Your task to perform on an android device: remove spam from my inbox in the gmail app Image 0: 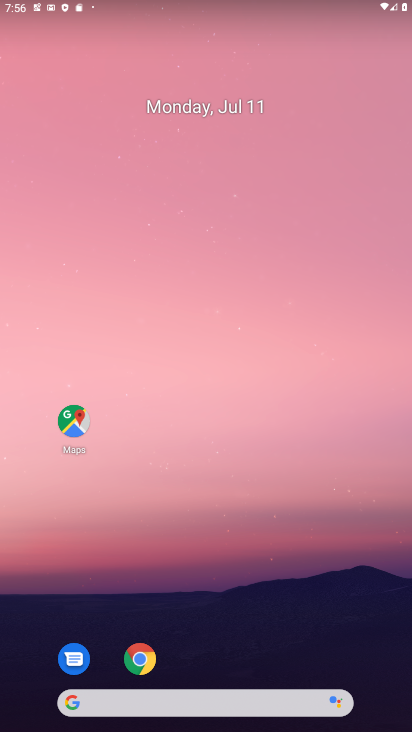
Step 0: drag from (238, 565) to (186, 217)
Your task to perform on an android device: remove spam from my inbox in the gmail app Image 1: 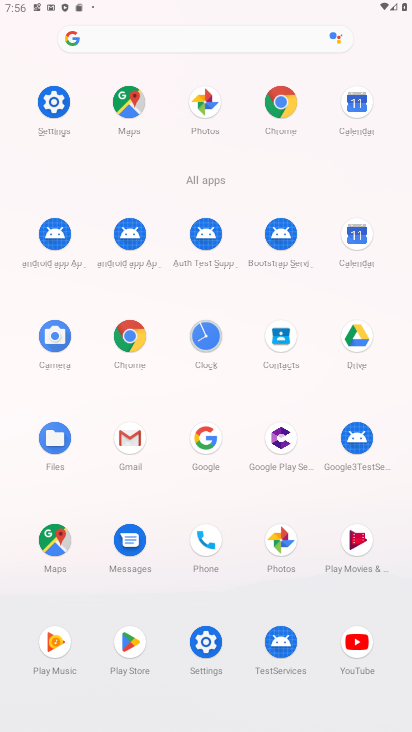
Step 1: click (141, 443)
Your task to perform on an android device: remove spam from my inbox in the gmail app Image 2: 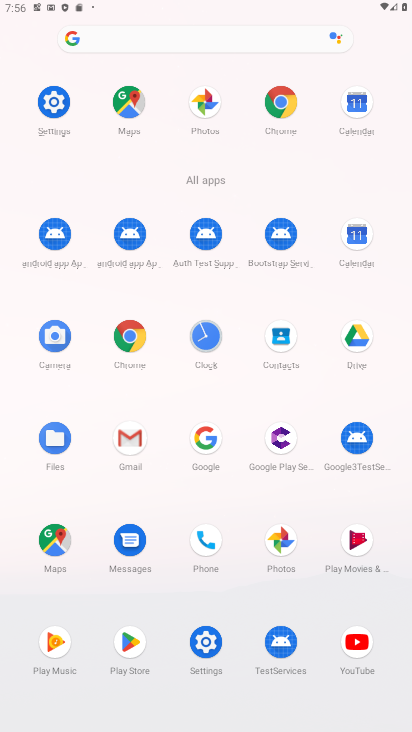
Step 2: click (130, 437)
Your task to perform on an android device: remove spam from my inbox in the gmail app Image 3: 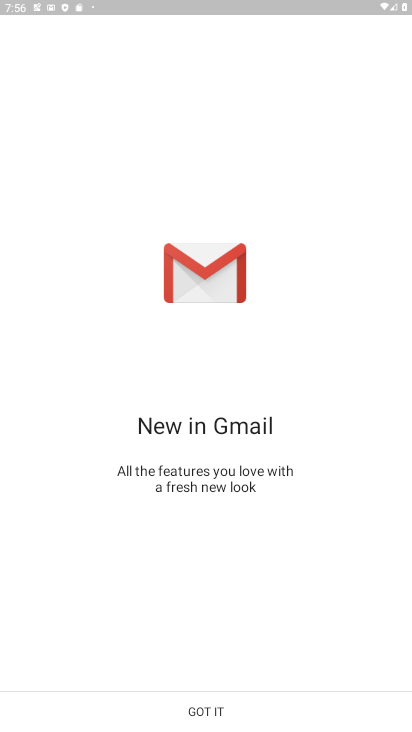
Step 3: click (214, 702)
Your task to perform on an android device: remove spam from my inbox in the gmail app Image 4: 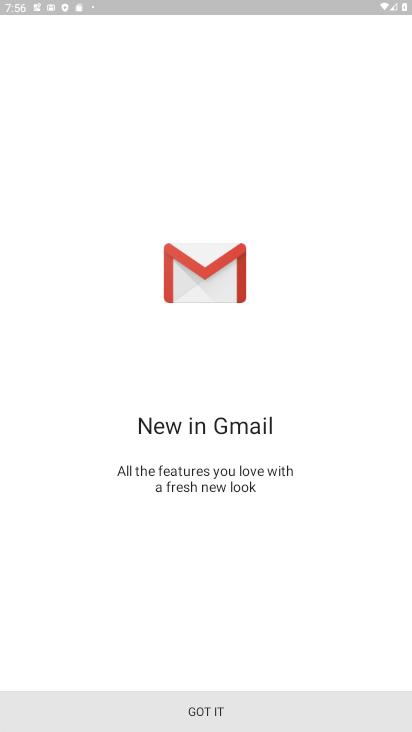
Step 4: click (221, 704)
Your task to perform on an android device: remove spam from my inbox in the gmail app Image 5: 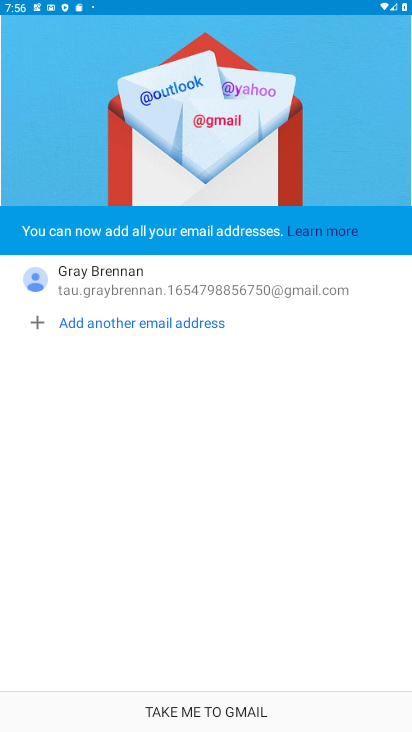
Step 5: click (242, 703)
Your task to perform on an android device: remove spam from my inbox in the gmail app Image 6: 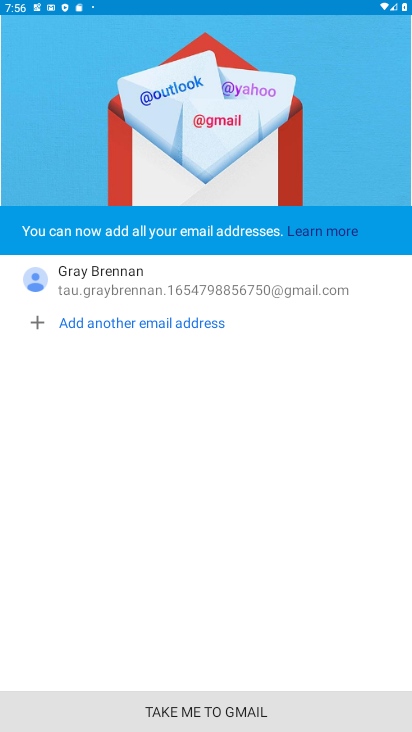
Step 6: click (241, 699)
Your task to perform on an android device: remove spam from my inbox in the gmail app Image 7: 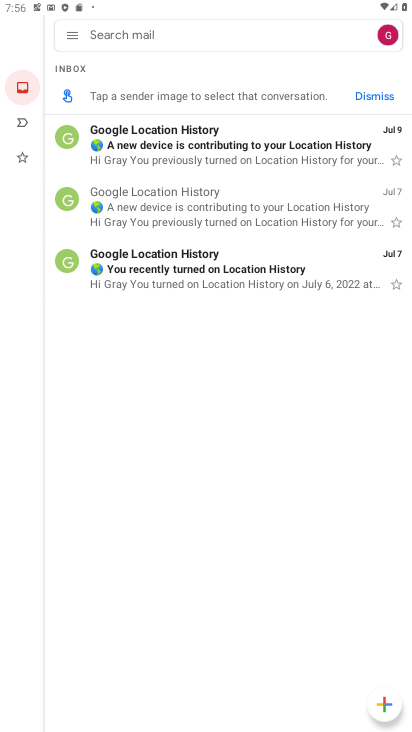
Step 7: click (73, 37)
Your task to perform on an android device: remove spam from my inbox in the gmail app Image 8: 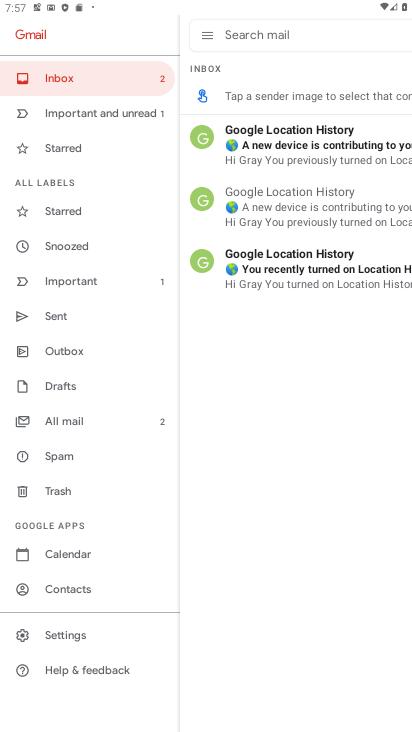
Step 8: click (56, 458)
Your task to perform on an android device: remove spam from my inbox in the gmail app Image 9: 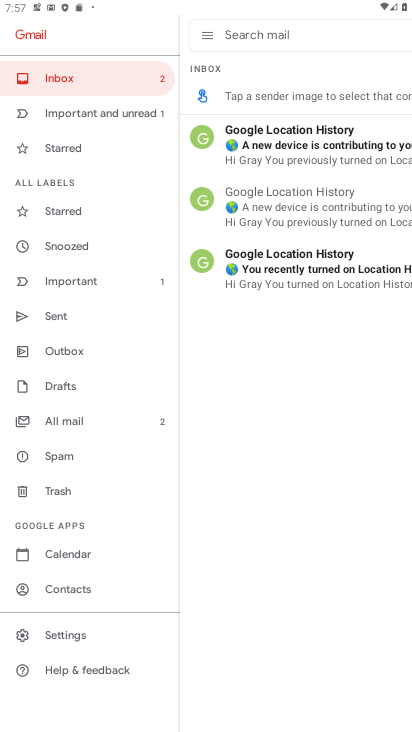
Step 9: click (56, 458)
Your task to perform on an android device: remove spam from my inbox in the gmail app Image 10: 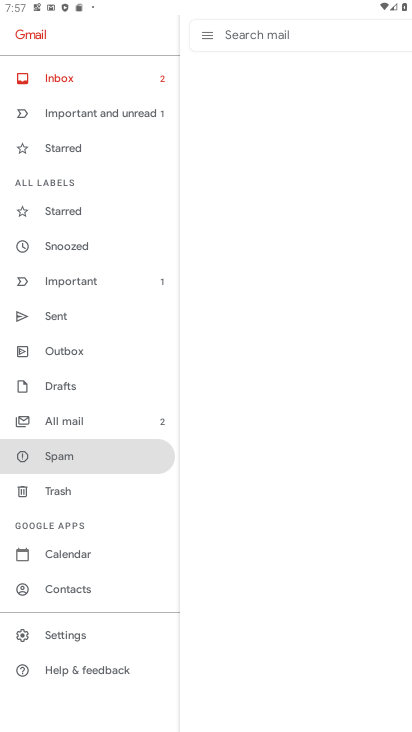
Step 10: click (56, 458)
Your task to perform on an android device: remove spam from my inbox in the gmail app Image 11: 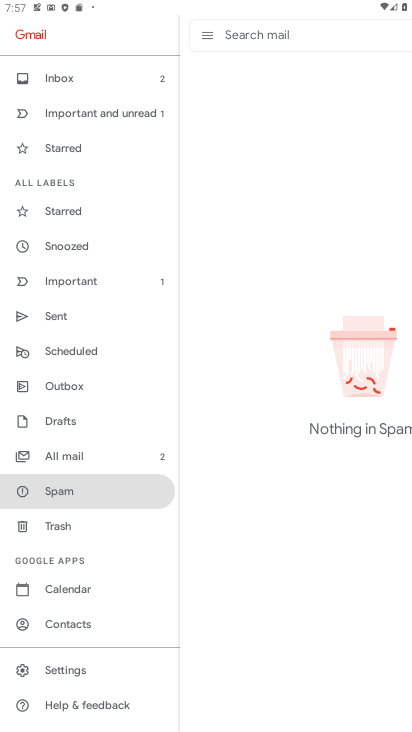
Step 11: task complete